Your task to perform on an android device: turn notification dots off Image 0: 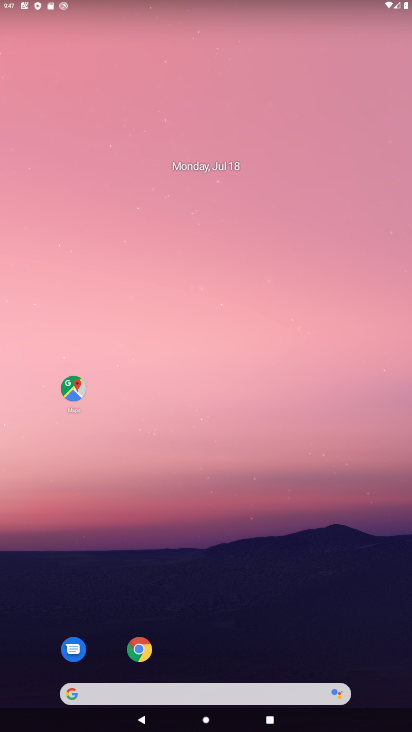
Step 0: drag from (56, 435) to (294, 78)
Your task to perform on an android device: turn notification dots off Image 1: 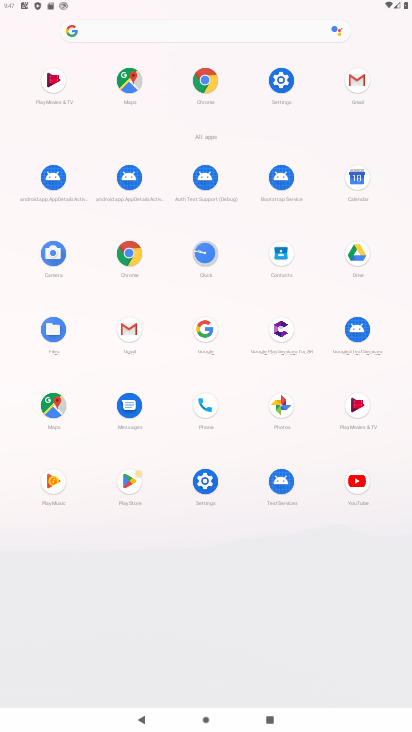
Step 1: click (283, 85)
Your task to perform on an android device: turn notification dots off Image 2: 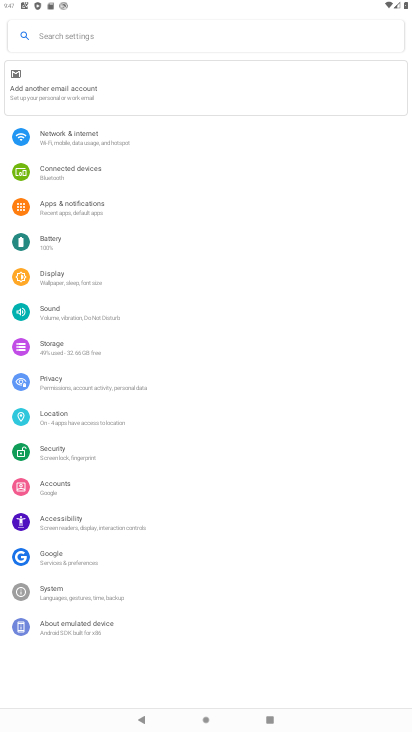
Step 2: click (47, 205)
Your task to perform on an android device: turn notification dots off Image 3: 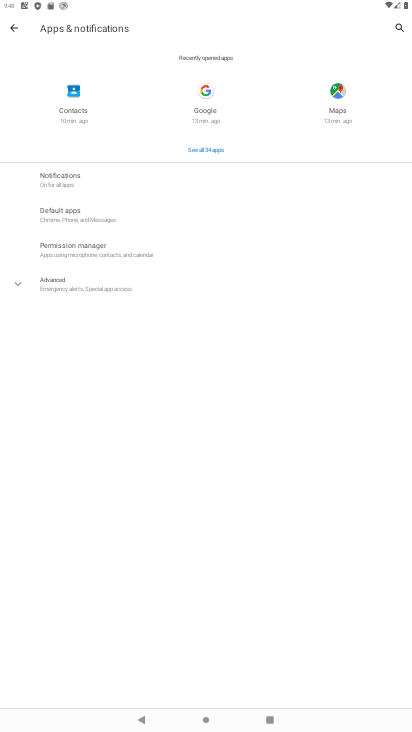
Step 3: click (65, 171)
Your task to perform on an android device: turn notification dots off Image 4: 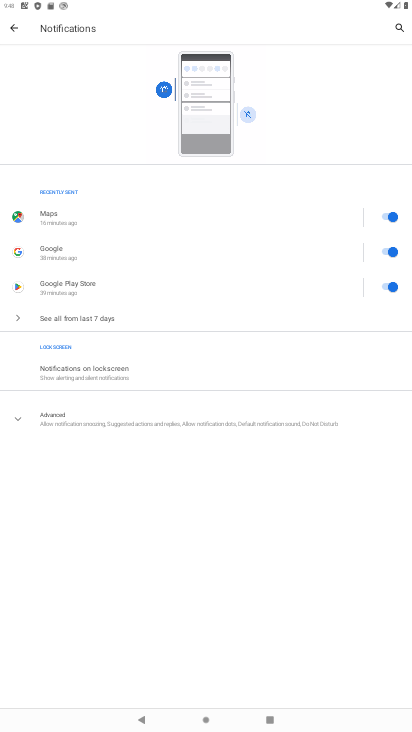
Step 4: click (148, 423)
Your task to perform on an android device: turn notification dots off Image 5: 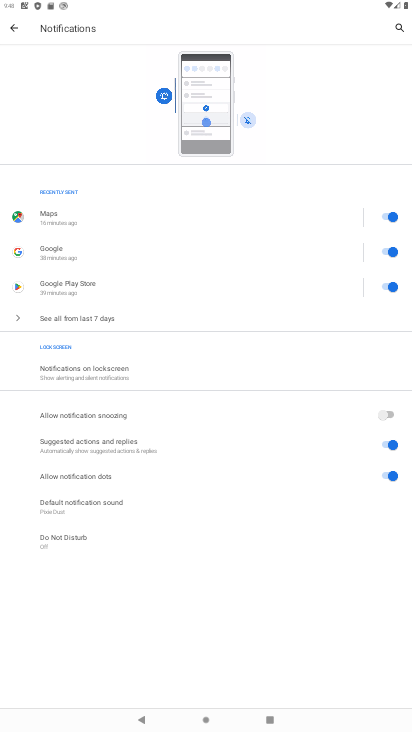
Step 5: click (392, 476)
Your task to perform on an android device: turn notification dots off Image 6: 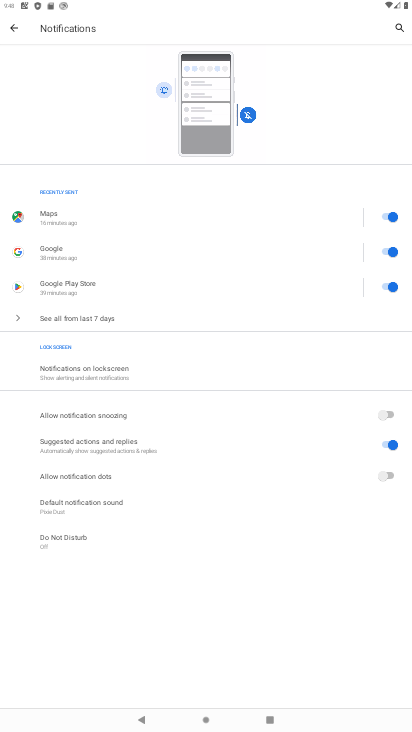
Step 6: task complete